Your task to perform on an android device: Toggle the flashlight Image 0: 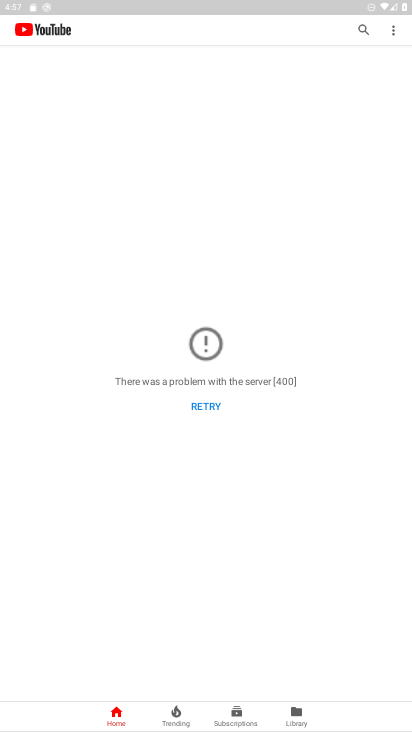
Step 0: press home button
Your task to perform on an android device: Toggle the flashlight Image 1: 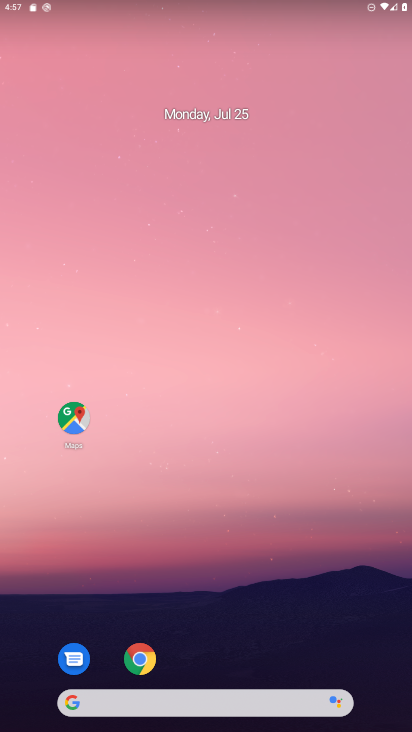
Step 1: task complete